Your task to perform on an android device: Open Google Chrome Image 0: 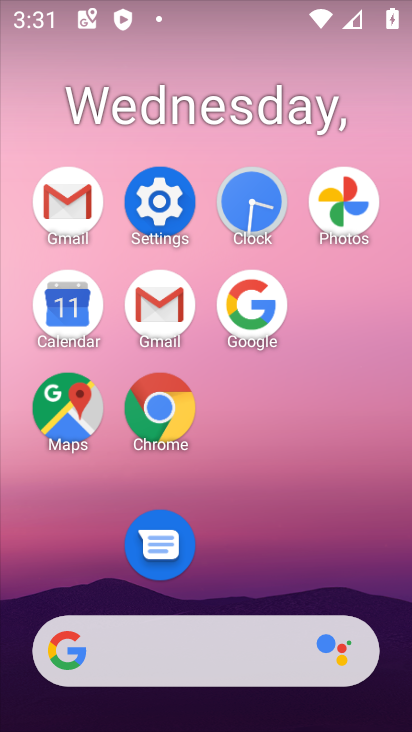
Step 0: click (174, 402)
Your task to perform on an android device: Open Google Chrome Image 1: 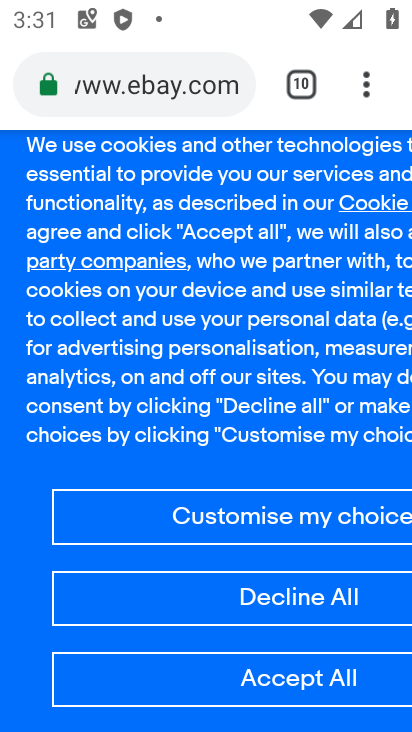
Step 1: task complete